Your task to perform on an android device: turn vacation reply on in the gmail app Image 0: 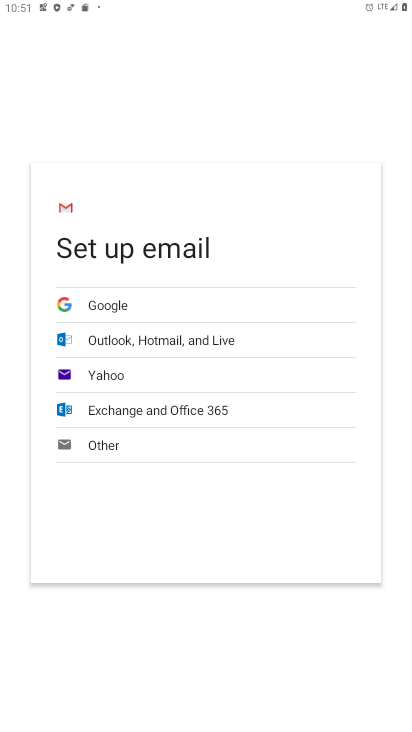
Step 0: press home button
Your task to perform on an android device: turn vacation reply on in the gmail app Image 1: 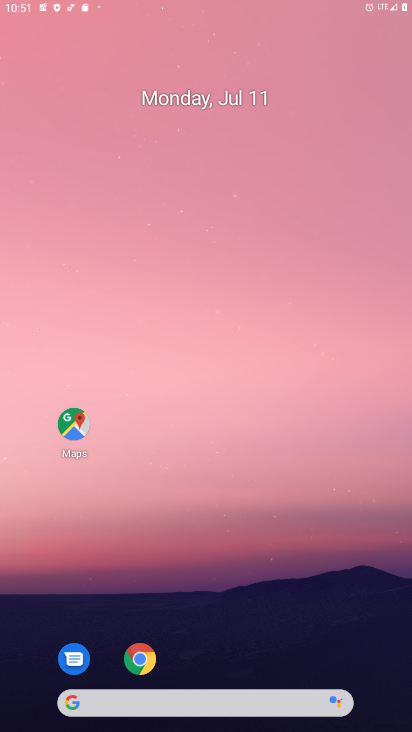
Step 1: drag from (231, 647) to (268, 239)
Your task to perform on an android device: turn vacation reply on in the gmail app Image 2: 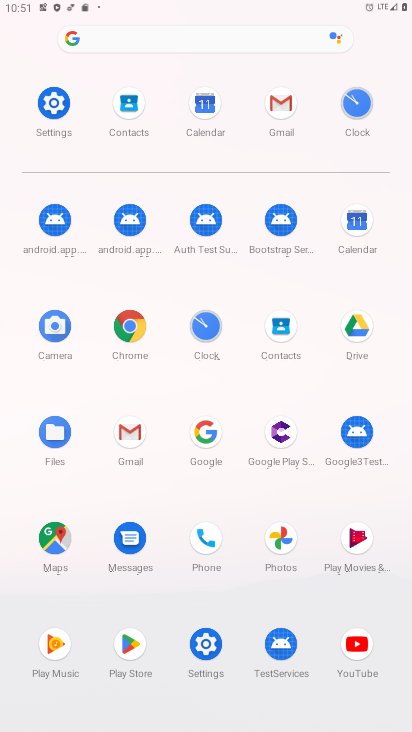
Step 2: click (137, 441)
Your task to perform on an android device: turn vacation reply on in the gmail app Image 3: 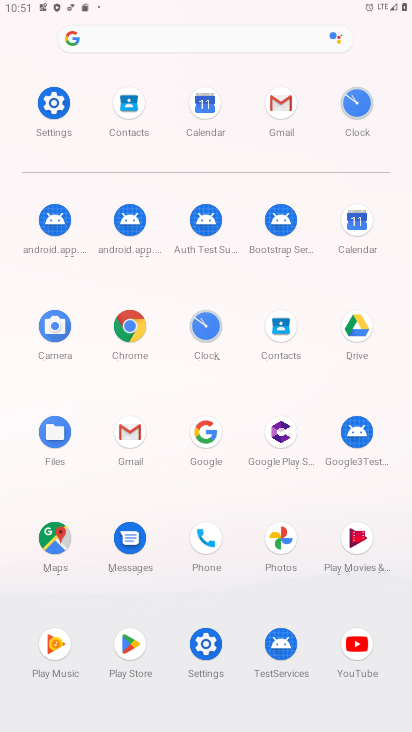
Step 3: click (137, 441)
Your task to perform on an android device: turn vacation reply on in the gmail app Image 4: 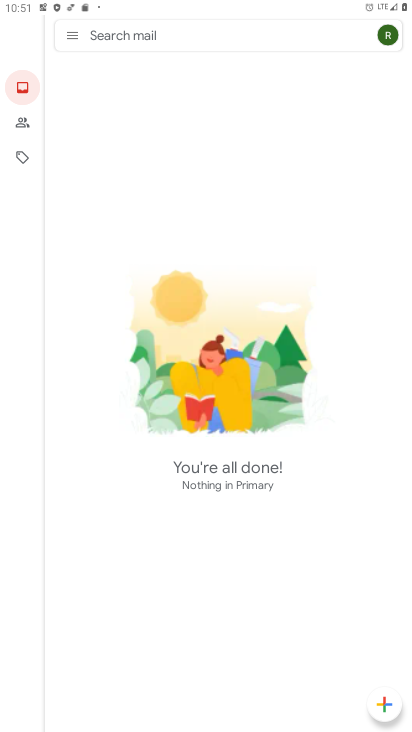
Step 4: drag from (189, 489) to (199, 214)
Your task to perform on an android device: turn vacation reply on in the gmail app Image 5: 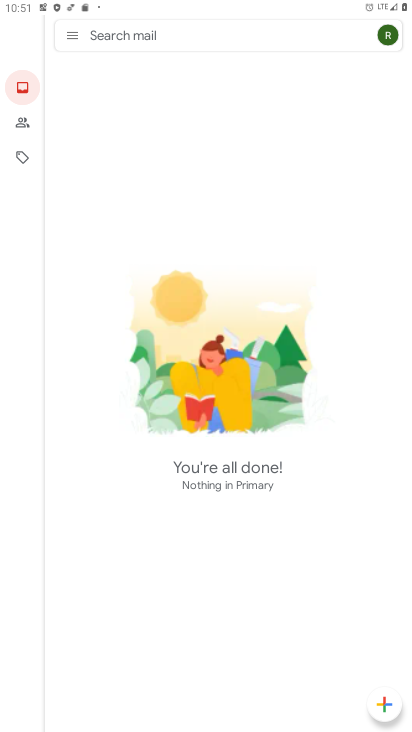
Step 5: click (72, 36)
Your task to perform on an android device: turn vacation reply on in the gmail app Image 6: 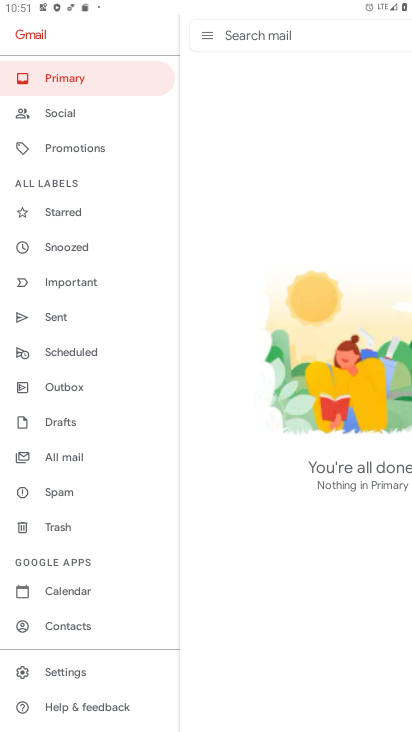
Step 6: click (70, 678)
Your task to perform on an android device: turn vacation reply on in the gmail app Image 7: 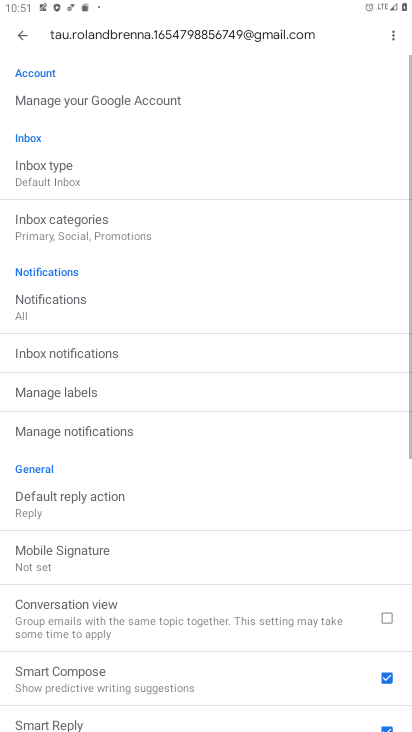
Step 7: drag from (142, 600) to (188, 283)
Your task to perform on an android device: turn vacation reply on in the gmail app Image 8: 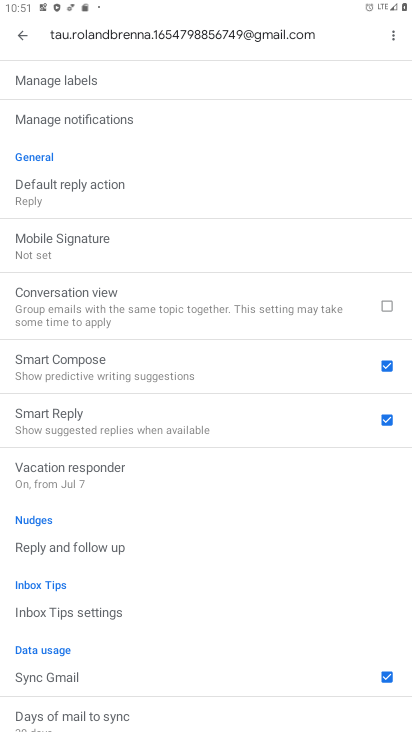
Step 8: drag from (150, 236) to (208, 724)
Your task to perform on an android device: turn vacation reply on in the gmail app Image 9: 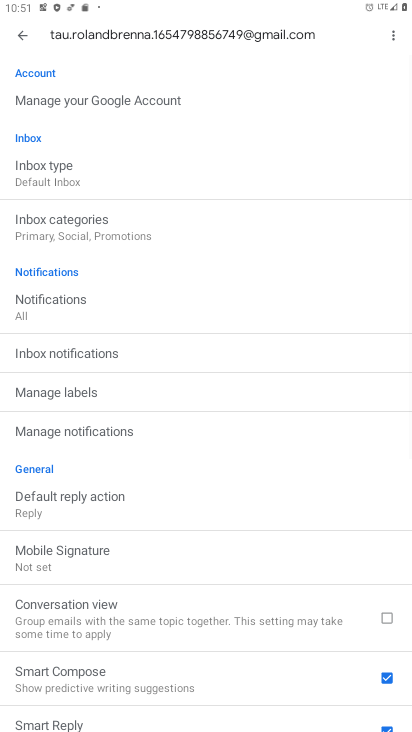
Step 9: drag from (125, 262) to (171, 605)
Your task to perform on an android device: turn vacation reply on in the gmail app Image 10: 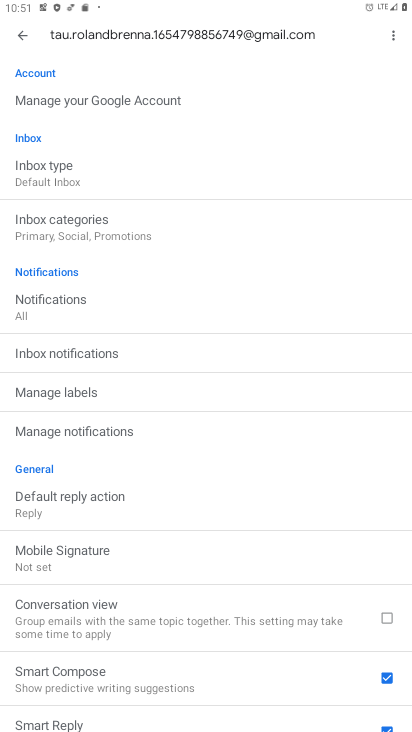
Step 10: drag from (139, 546) to (187, 137)
Your task to perform on an android device: turn vacation reply on in the gmail app Image 11: 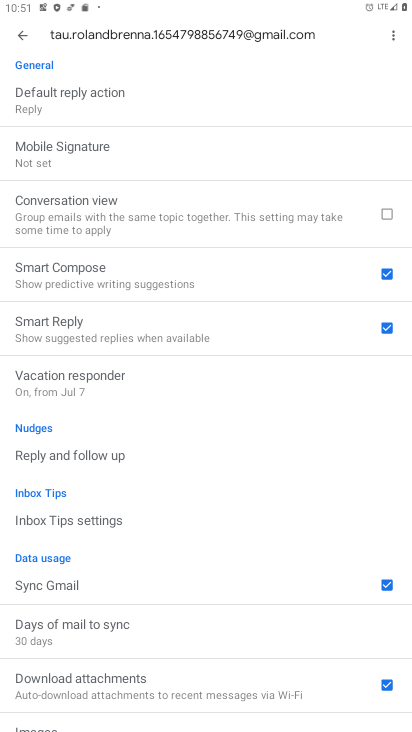
Step 11: click (105, 380)
Your task to perform on an android device: turn vacation reply on in the gmail app Image 12: 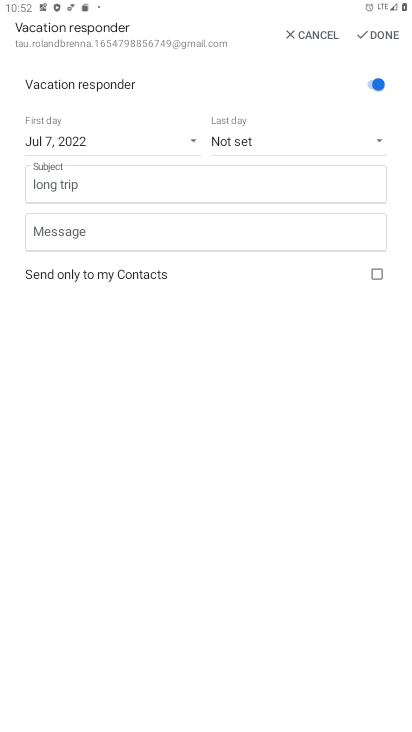
Step 12: click (374, 27)
Your task to perform on an android device: turn vacation reply on in the gmail app Image 13: 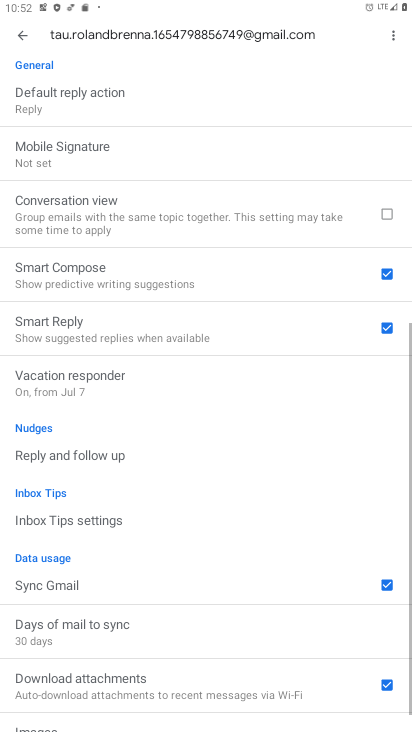
Step 13: task complete